Your task to perform on an android device: Search for "lenovo thinkpad" on ebay, select the first entry, add it to the cart, then select checkout. Image 0: 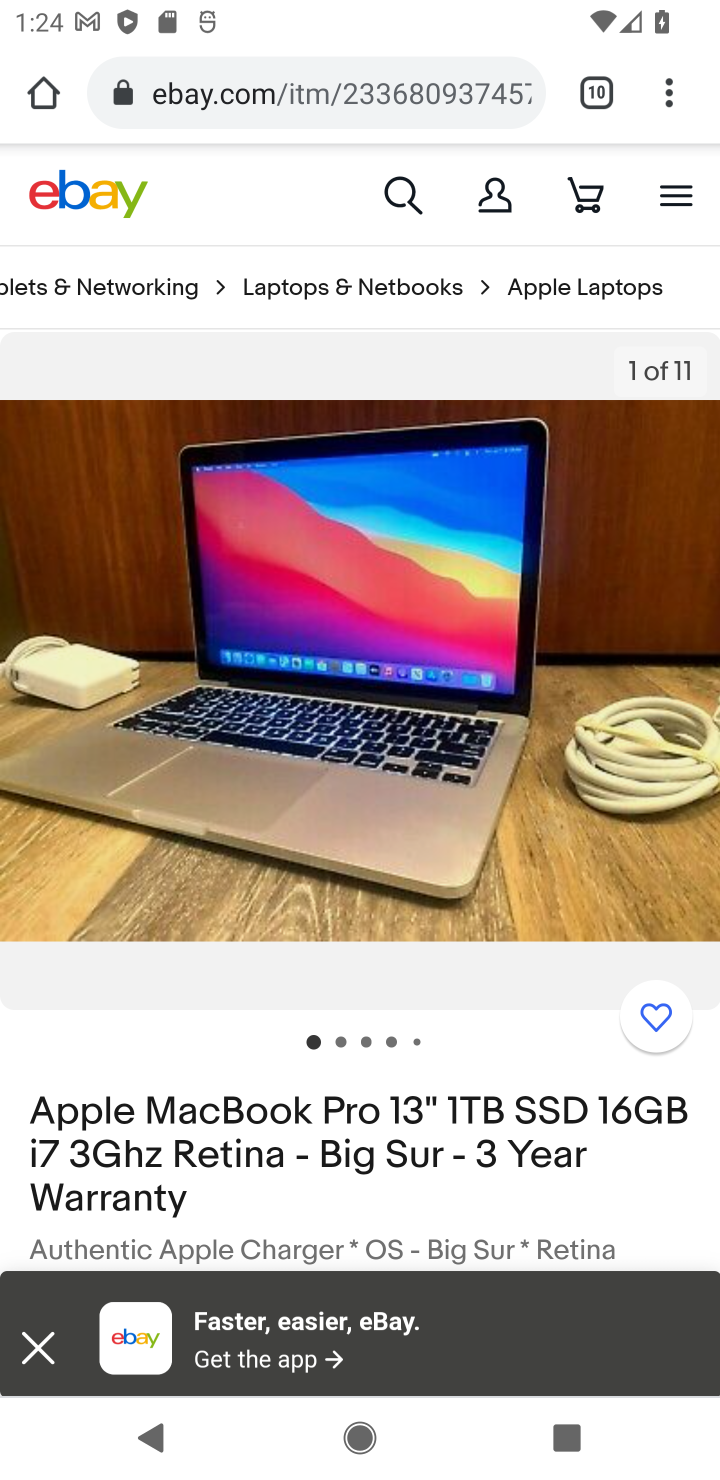
Step 0: task complete